Your task to perform on an android device: open the mobile data screen to see how much data has been used Image 0: 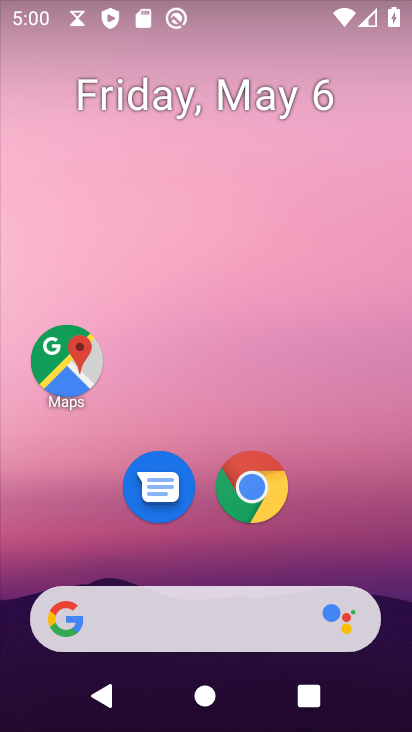
Step 0: drag from (329, 545) to (282, 11)
Your task to perform on an android device: open the mobile data screen to see how much data has been used Image 1: 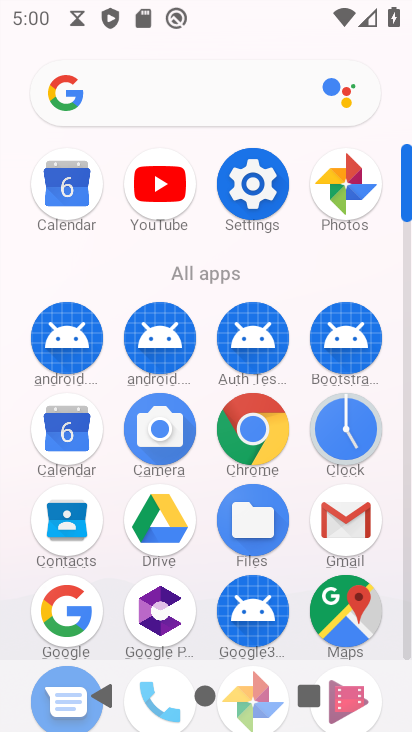
Step 1: click (254, 182)
Your task to perform on an android device: open the mobile data screen to see how much data has been used Image 2: 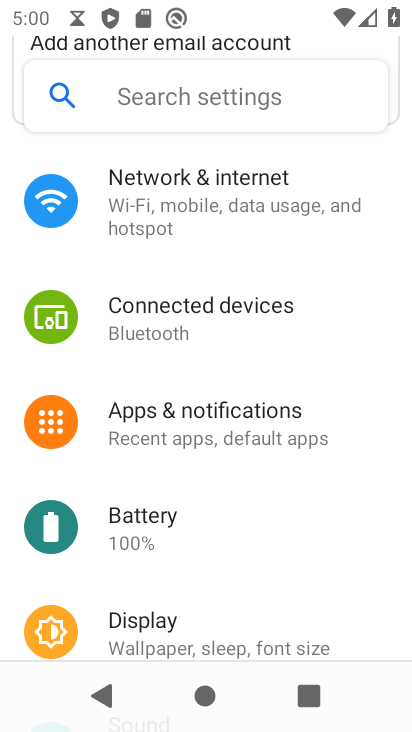
Step 2: click (181, 178)
Your task to perform on an android device: open the mobile data screen to see how much data has been used Image 3: 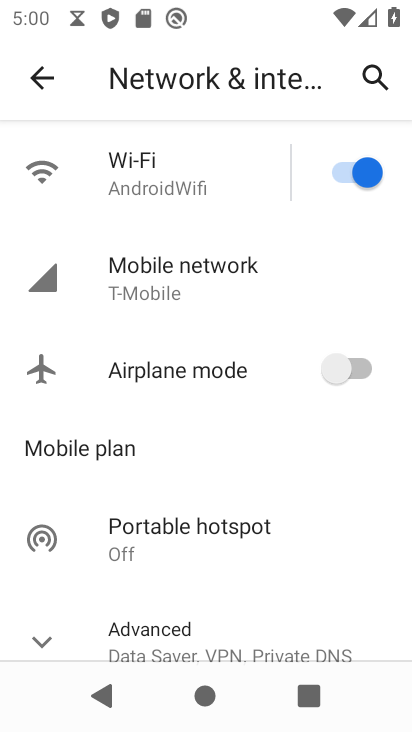
Step 3: click (182, 273)
Your task to perform on an android device: open the mobile data screen to see how much data has been used Image 4: 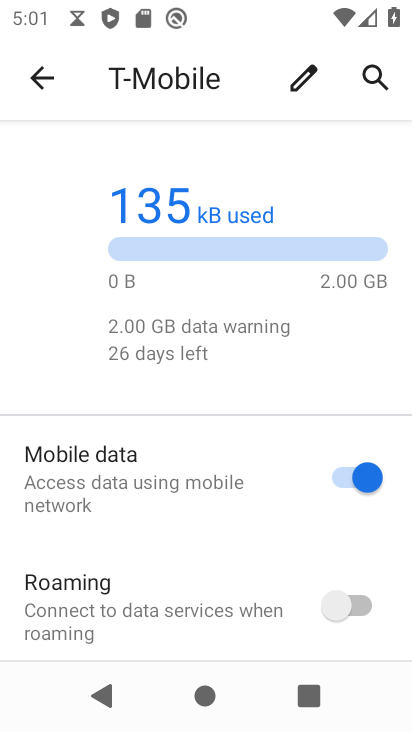
Step 4: task complete